Your task to perform on an android device: toggle notification dots Image 0: 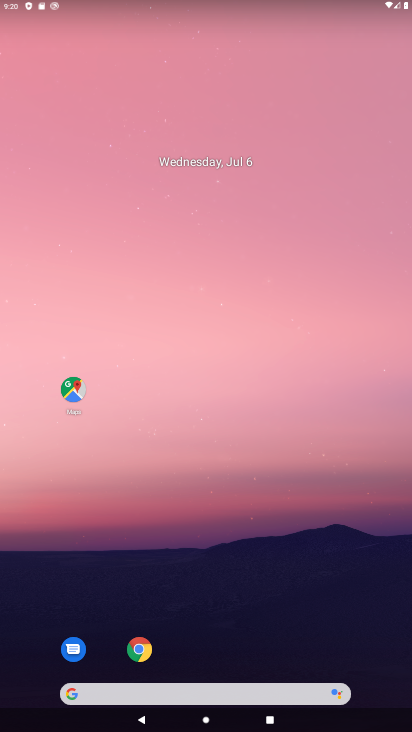
Step 0: drag from (217, 656) to (198, 52)
Your task to perform on an android device: toggle notification dots Image 1: 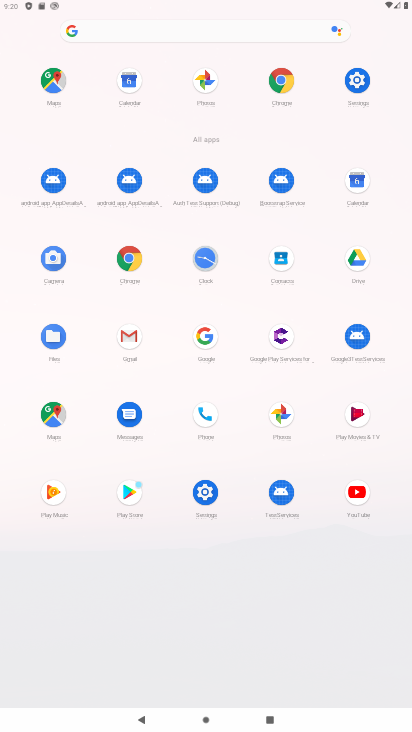
Step 1: click (357, 79)
Your task to perform on an android device: toggle notification dots Image 2: 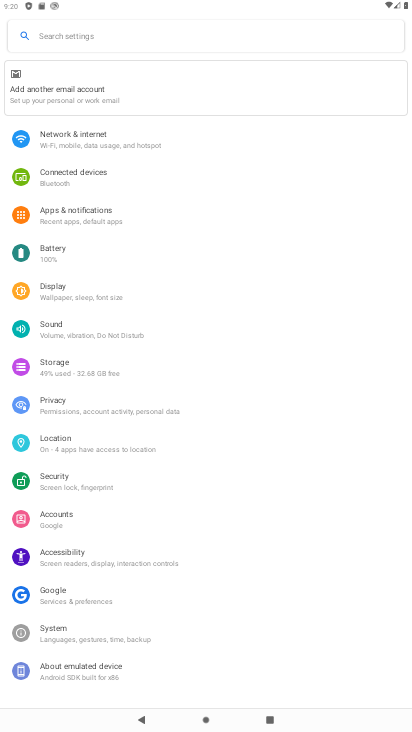
Step 2: click (108, 210)
Your task to perform on an android device: toggle notification dots Image 3: 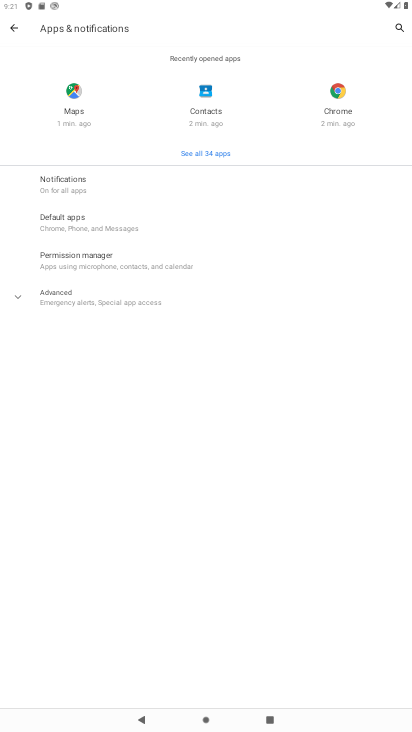
Step 3: click (91, 182)
Your task to perform on an android device: toggle notification dots Image 4: 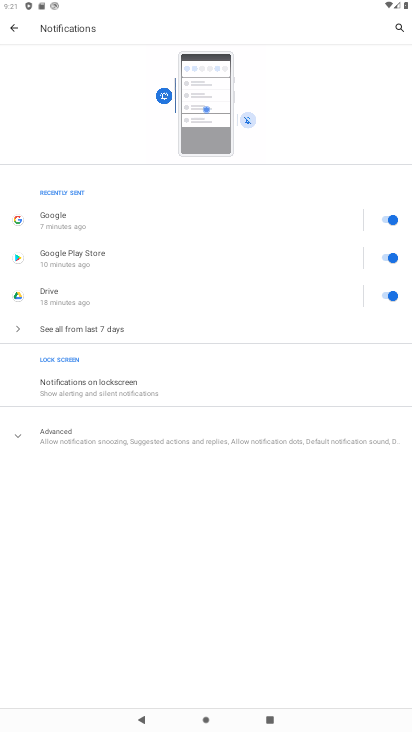
Step 4: click (34, 434)
Your task to perform on an android device: toggle notification dots Image 5: 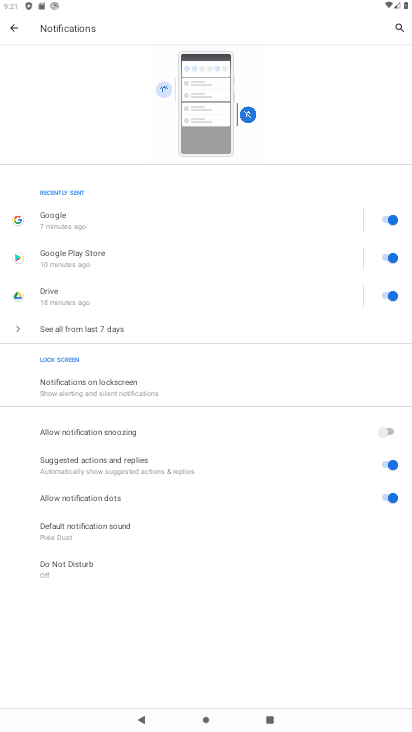
Step 5: click (388, 498)
Your task to perform on an android device: toggle notification dots Image 6: 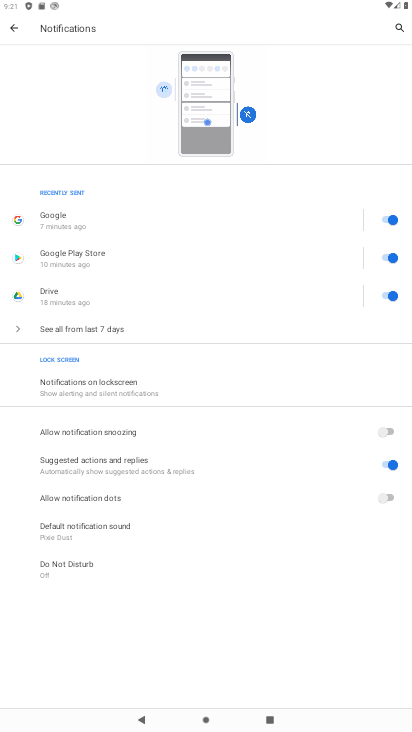
Step 6: task complete